Your task to perform on an android device: turn notification dots on Image 0: 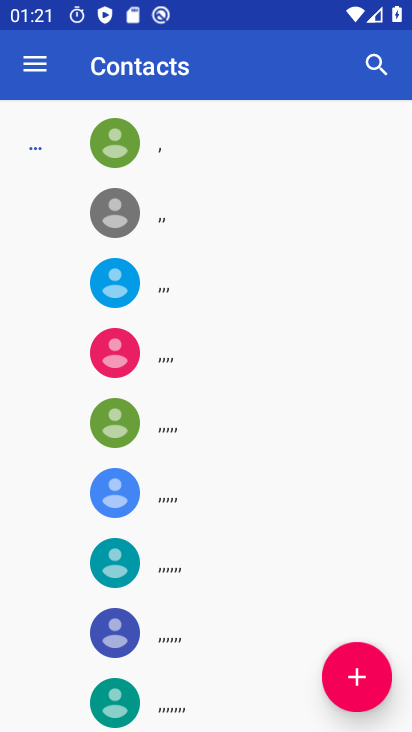
Step 0: press home button
Your task to perform on an android device: turn notification dots on Image 1: 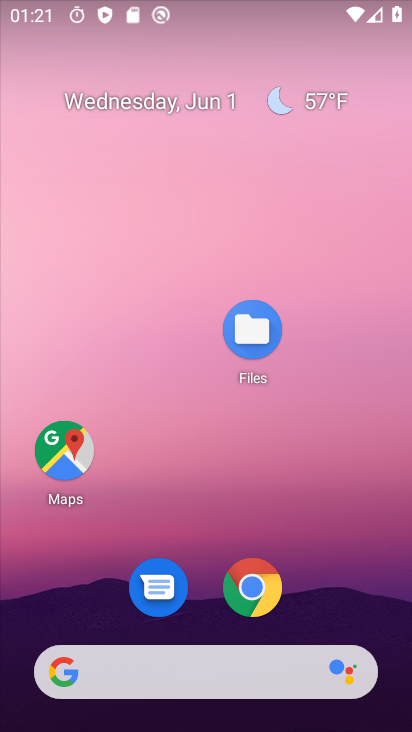
Step 1: drag from (344, 374) to (359, 141)
Your task to perform on an android device: turn notification dots on Image 2: 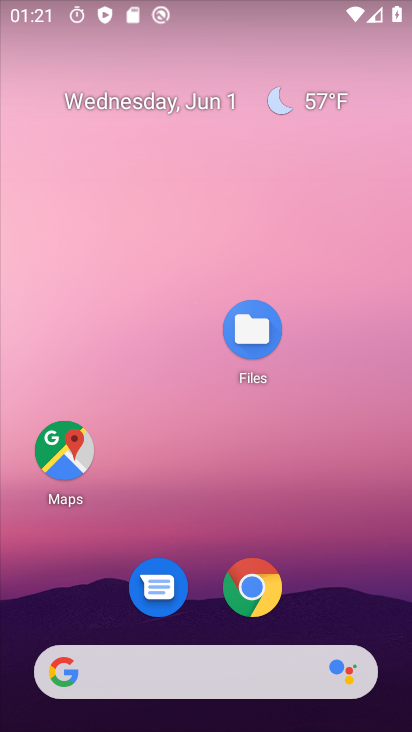
Step 2: drag from (332, 531) to (337, 93)
Your task to perform on an android device: turn notification dots on Image 3: 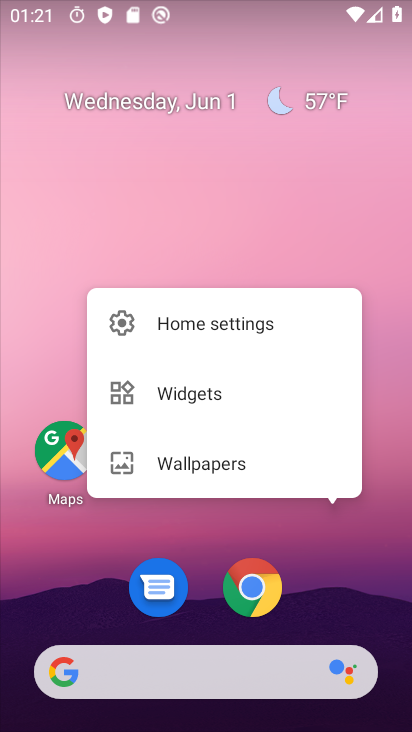
Step 3: click (358, 576)
Your task to perform on an android device: turn notification dots on Image 4: 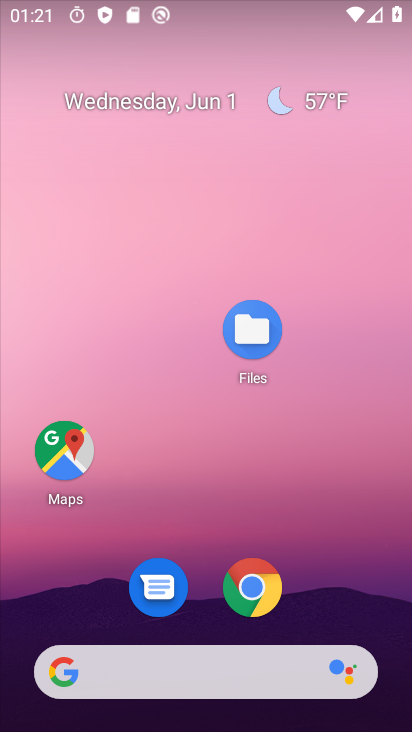
Step 4: drag from (358, 576) to (359, 103)
Your task to perform on an android device: turn notification dots on Image 5: 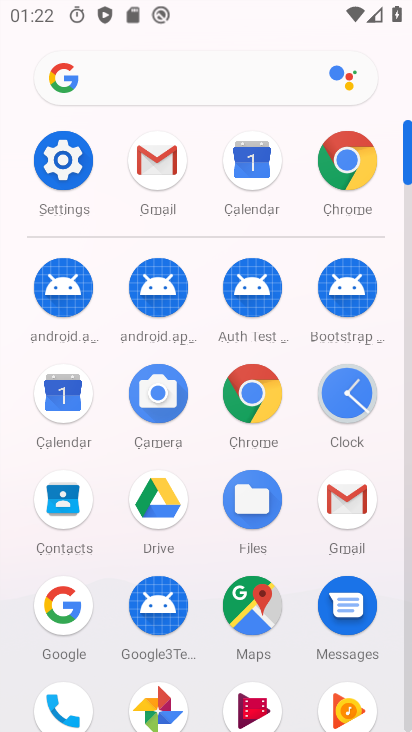
Step 5: click (46, 182)
Your task to perform on an android device: turn notification dots on Image 6: 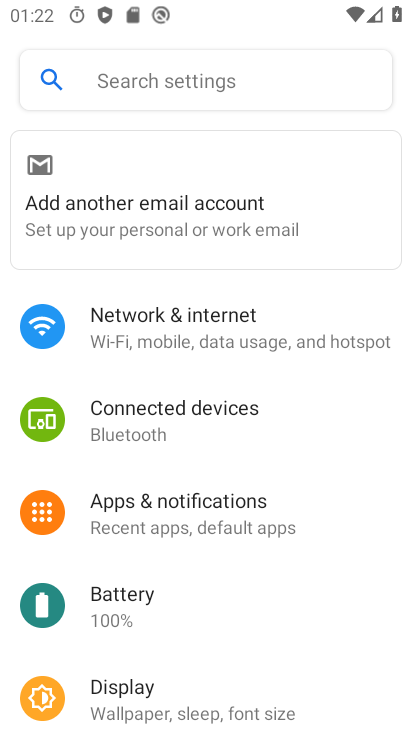
Step 6: drag from (254, 575) to (271, 312)
Your task to perform on an android device: turn notification dots on Image 7: 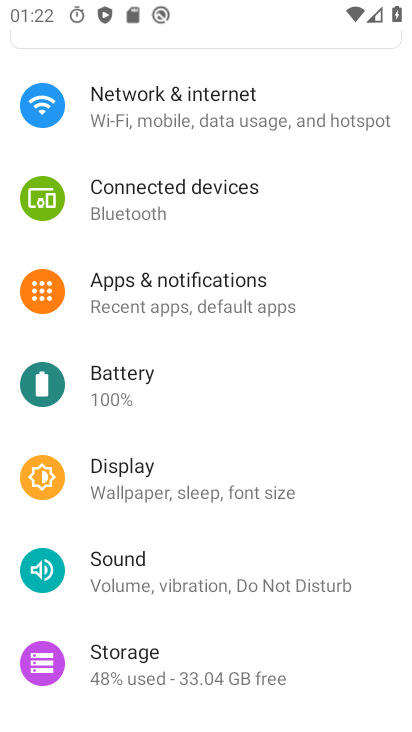
Step 7: click (211, 282)
Your task to perform on an android device: turn notification dots on Image 8: 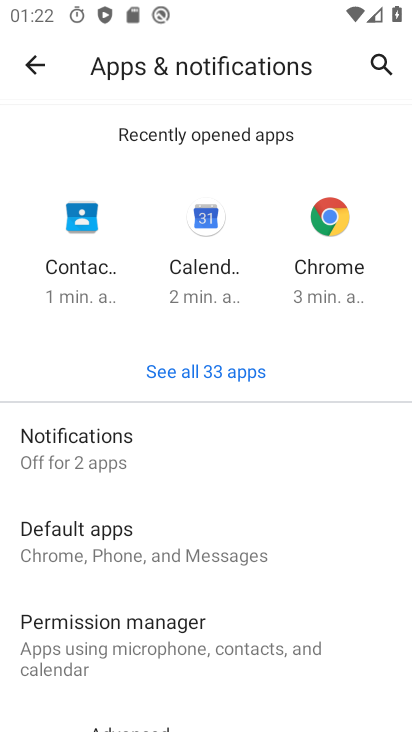
Step 8: click (72, 473)
Your task to perform on an android device: turn notification dots on Image 9: 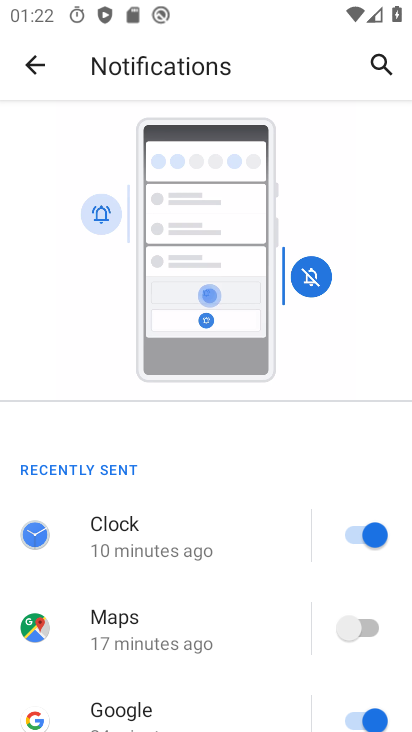
Step 9: drag from (184, 654) to (205, 305)
Your task to perform on an android device: turn notification dots on Image 10: 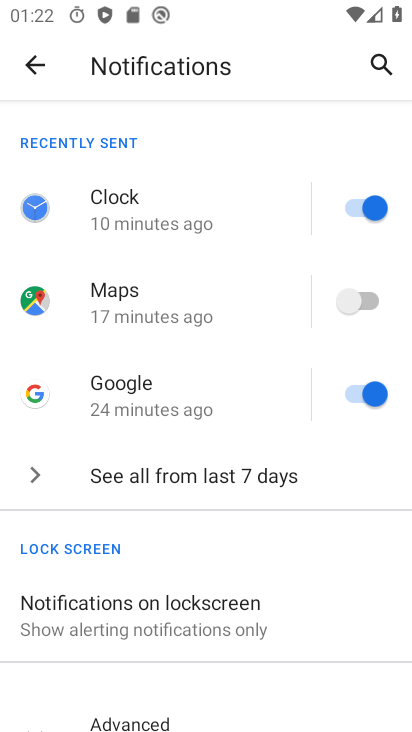
Step 10: drag from (217, 653) to (301, 331)
Your task to perform on an android device: turn notification dots on Image 11: 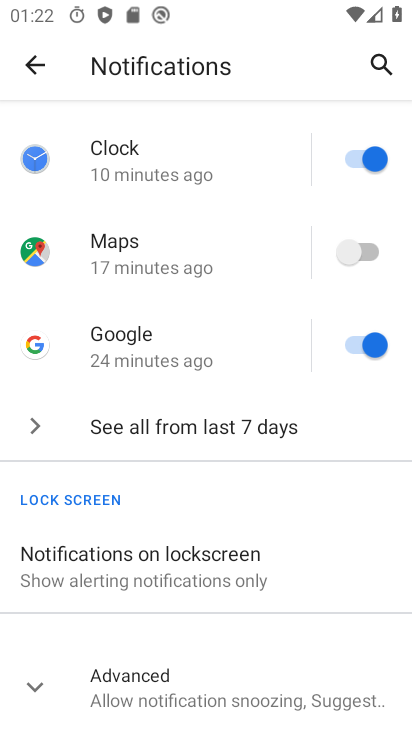
Step 11: click (233, 687)
Your task to perform on an android device: turn notification dots on Image 12: 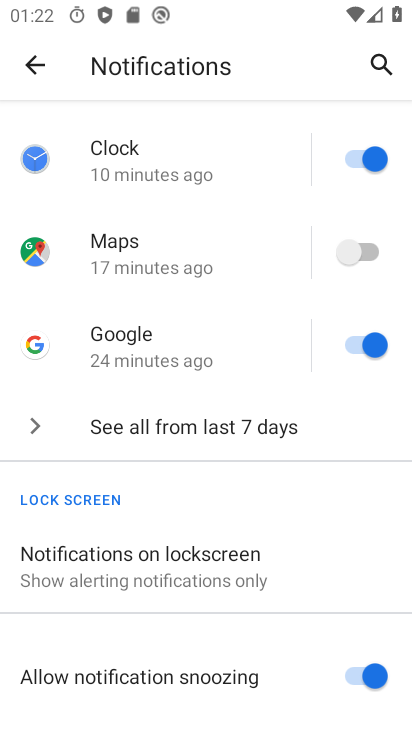
Step 12: task complete